Your task to perform on an android device: Open Chrome and go to the settings page Image 0: 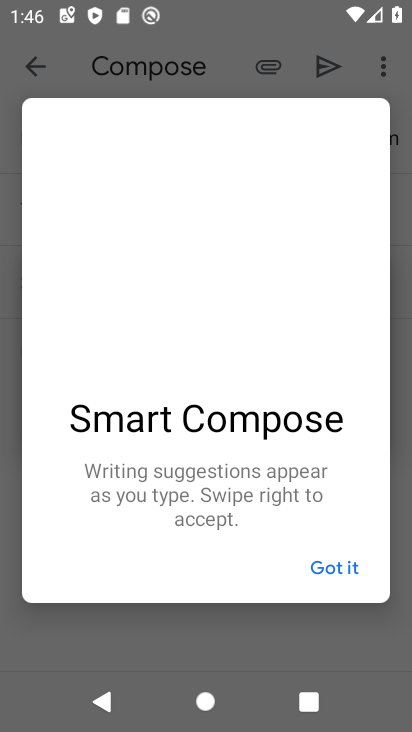
Step 0: press home button
Your task to perform on an android device: Open Chrome and go to the settings page Image 1: 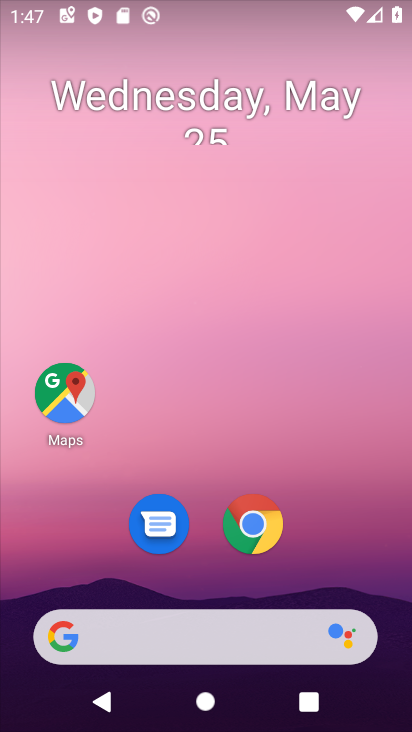
Step 1: click (261, 524)
Your task to perform on an android device: Open Chrome and go to the settings page Image 2: 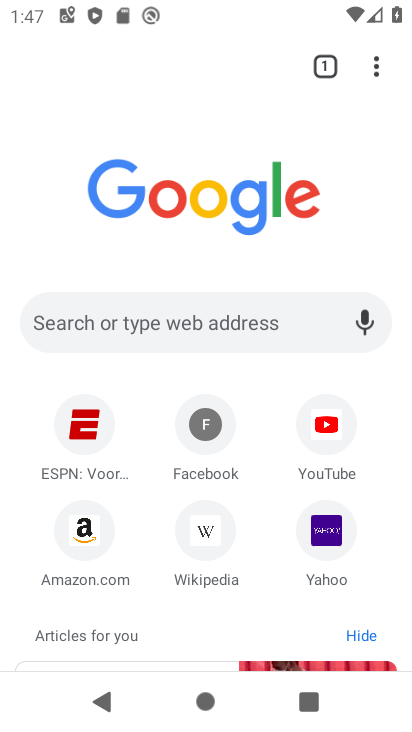
Step 2: click (372, 68)
Your task to perform on an android device: Open Chrome and go to the settings page Image 3: 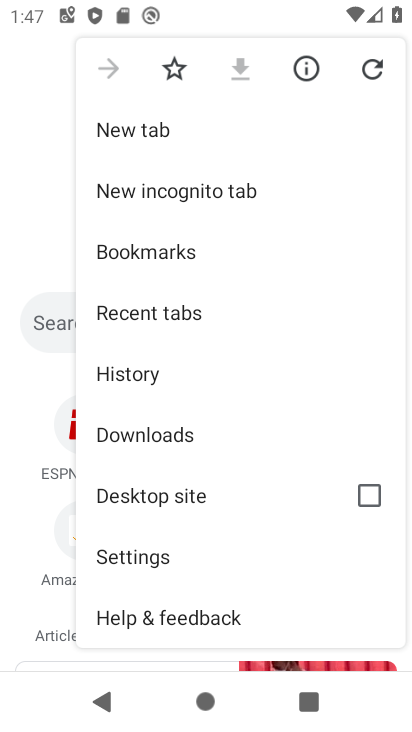
Step 3: click (176, 547)
Your task to perform on an android device: Open Chrome and go to the settings page Image 4: 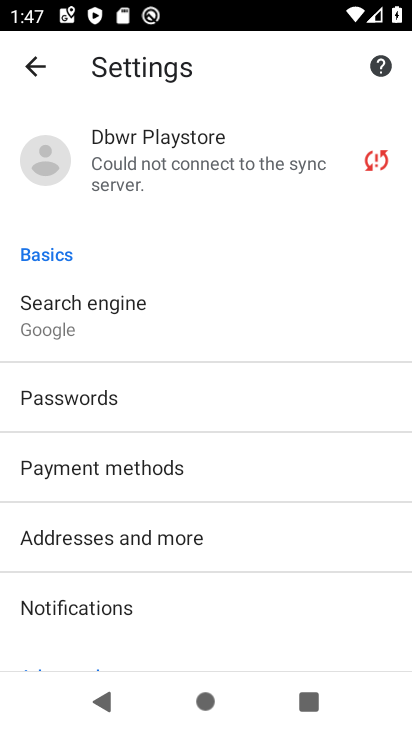
Step 4: task complete